Your task to perform on an android device: Show me popular games on the Play Store Image 0: 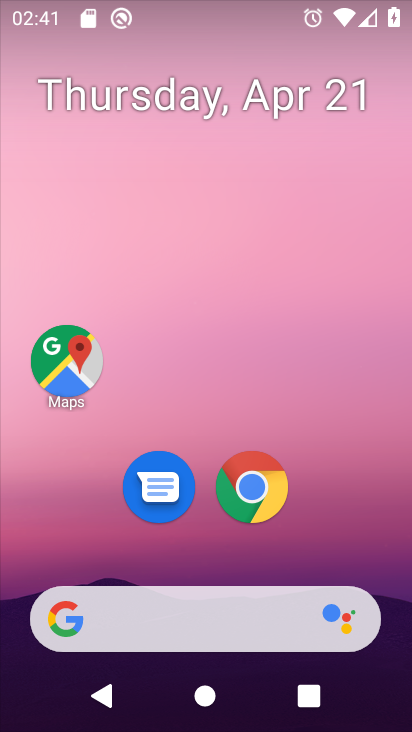
Step 0: drag from (191, 539) to (248, 9)
Your task to perform on an android device: Show me popular games on the Play Store Image 1: 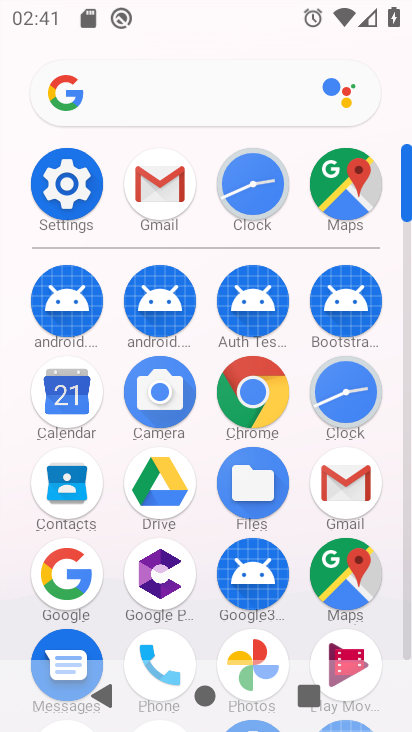
Step 1: drag from (188, 584) to (200, 181)
Your task to perform on an android device: Show me popular games on the Play Store Image 2: 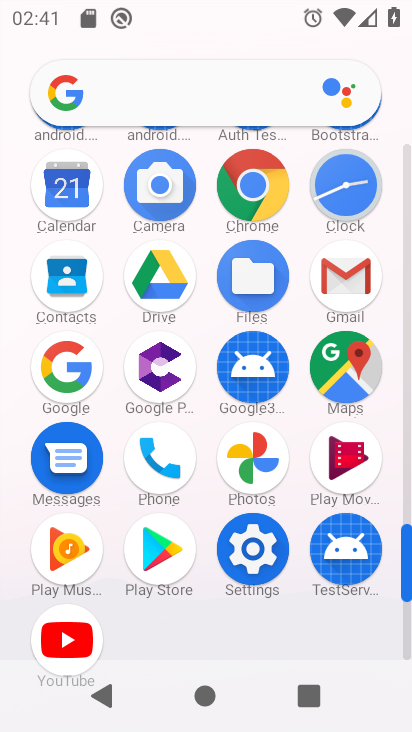
Step 2: click (164, 555)
Your task to perform on an android device: Show me popular games on the Play Store Image 3: 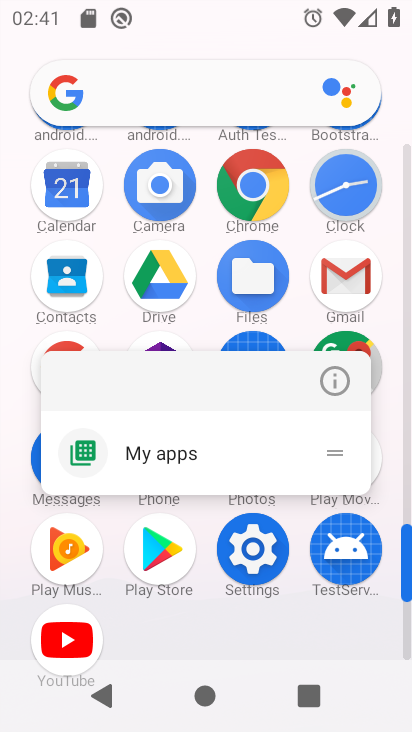
Step 3: click (335, 382)
Your task to perform on an android device: Show me popular games on the Play Store Image 4: 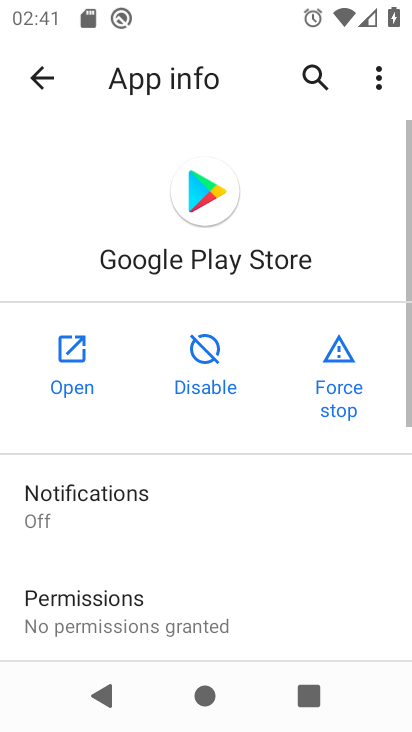
Step 4: click (89, 349)
Your task to perform on an android device: Show me popular games on the Play Store Image 5: 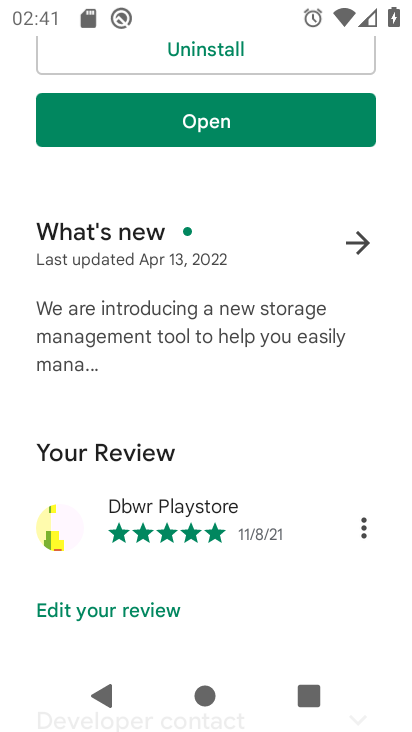
Step 5: drag from (227, 291) to (265, 638)
Your task to perform on an android device: Show me popular games on the Play Store Image 6: 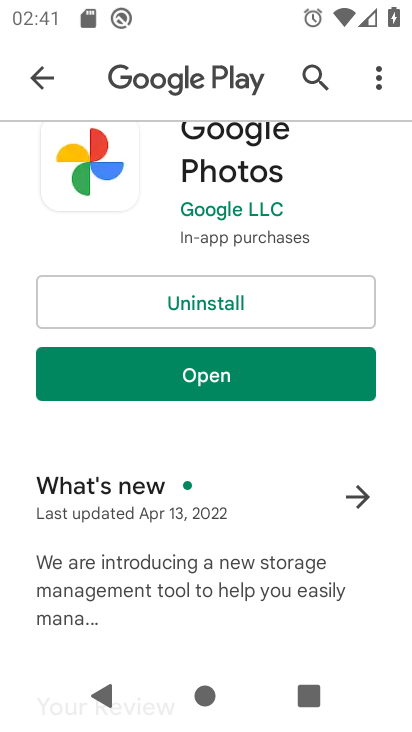
Step 6: click (51, 81)
Your task to perform on an android device: Show me popular games on the Play Store Image 7: 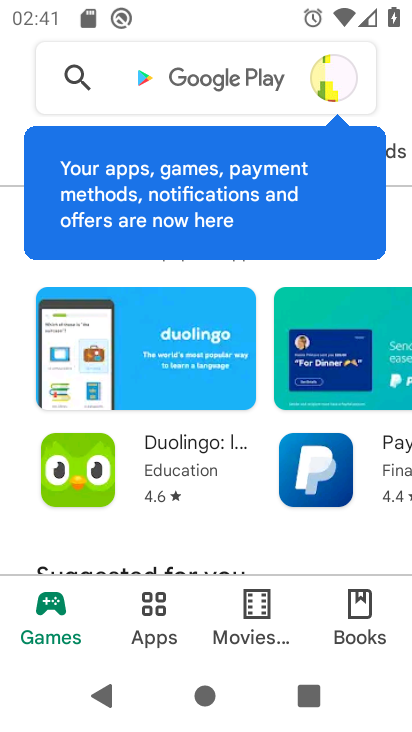
Step 7: click (152, 94)
Your task to perform on an android device: Show me popular games on the Play Store Image 8: 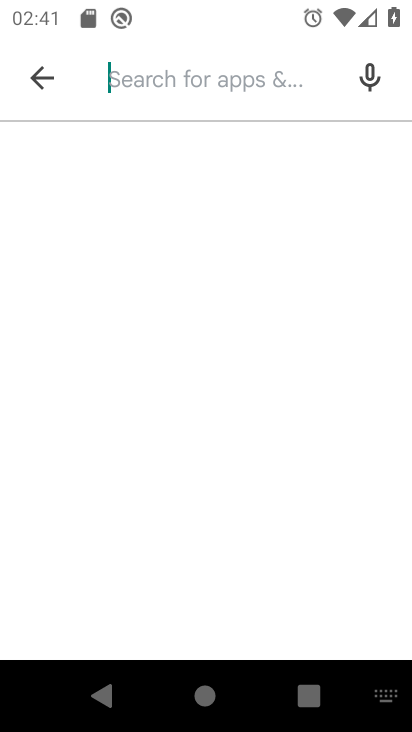
Step 8: type "popular games "
Your task to perform on an android device: Show me popular games on the Play Store Image 9: 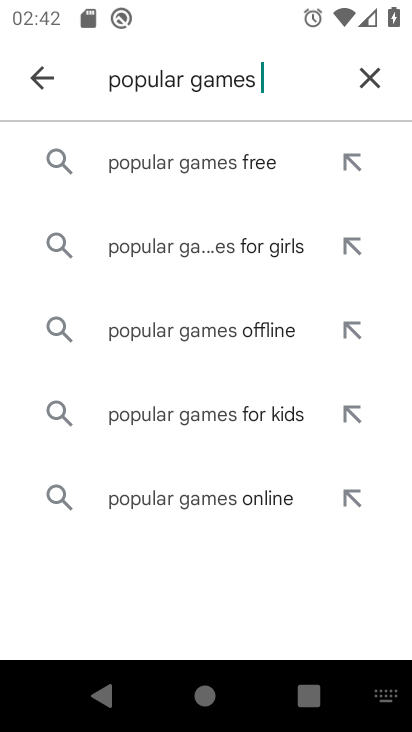
Step 9: click (221, 155)
Your task to perform on an android device: Show me popular games on the Play Store Image 10: 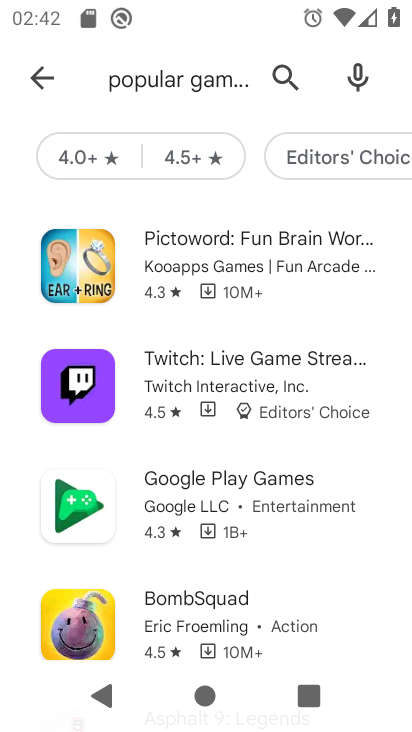
Step 10: task complete